Your task to perform on an android device: toggle priority inbox in the gmail app Image 0: 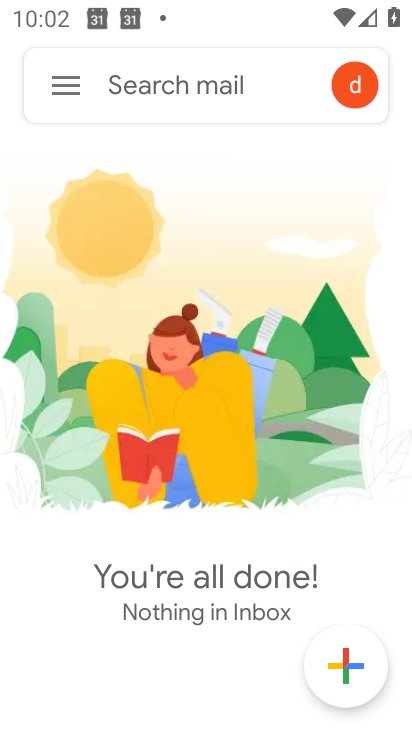
Step 0: press home button
Your task to perform on an android device: toggle priority inbox in the gmail app Image 1: 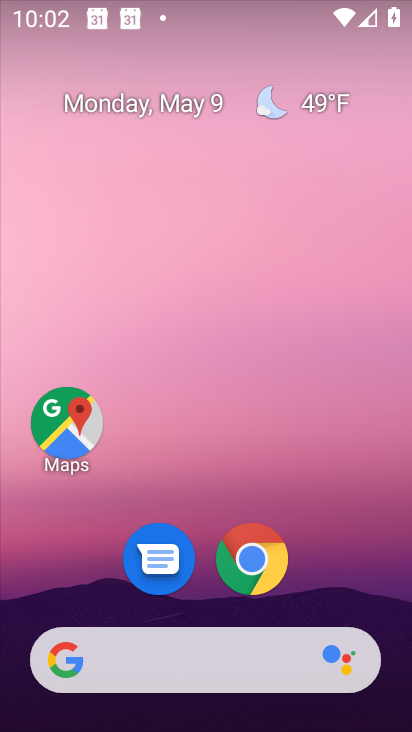
Step 1: drag from (205, 730) to (203, 191)
Your task to perform on an android device: toggle priority inbox in the gmail app Image 2: 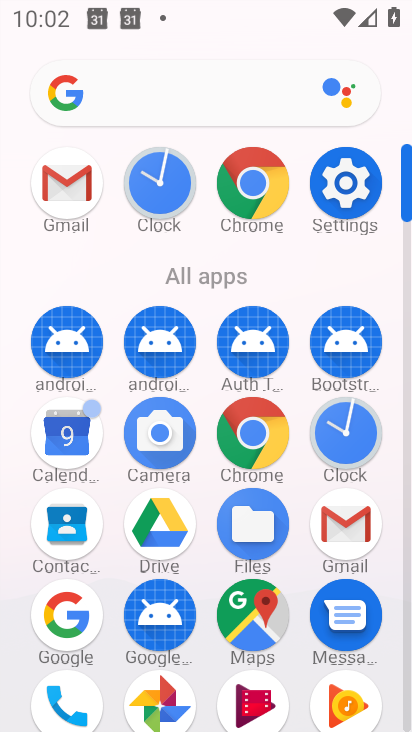
Step 2: click (344, 525)
Your task to perform on an android device: toggle priority inbox in the gmail app Image 3: 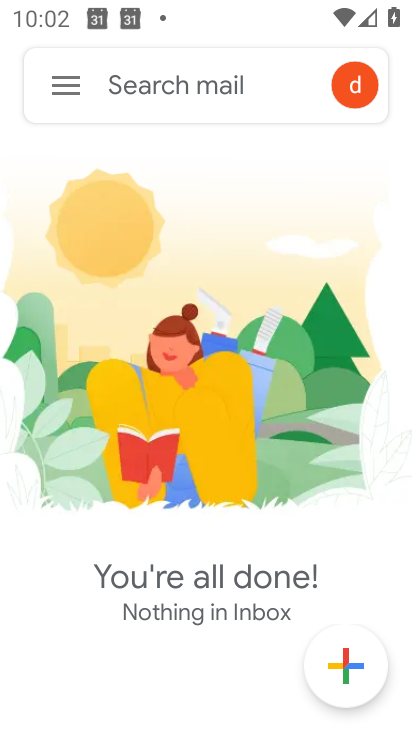
Step 3: click (63, 88)
Your task to perform on an android device: toggle priority inbox in the gmail app Image 4: 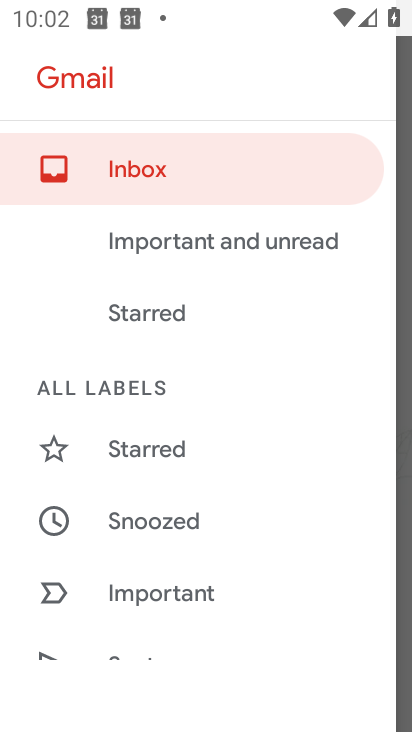
Step 4: drag from (208, 641) to (207, 166)
Your task to perform on an android device: toggle priority inbox in the gmail app Image 5: 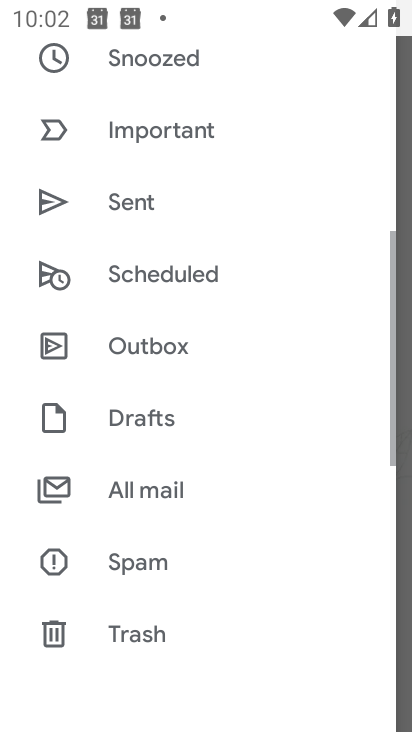
Step 5: drag from (182, 648) to (210, 218)
Your task to perform on an android device: toggle priority inbox in the gmail app Image 6: 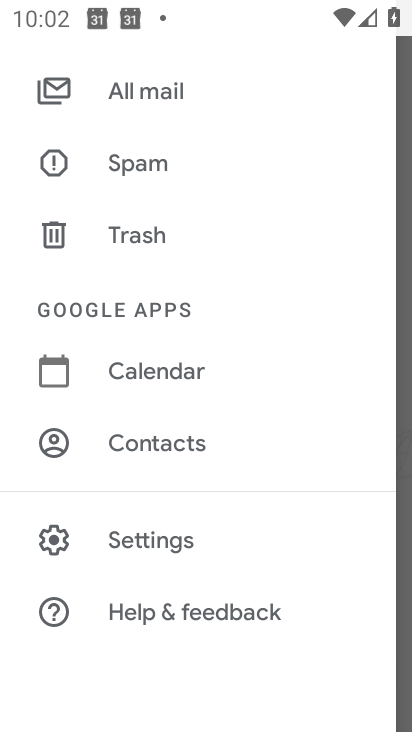
Step 6: click (141, 536)
Your task to perform on an android device: toggle priority inbox in the gmail app Image 7: 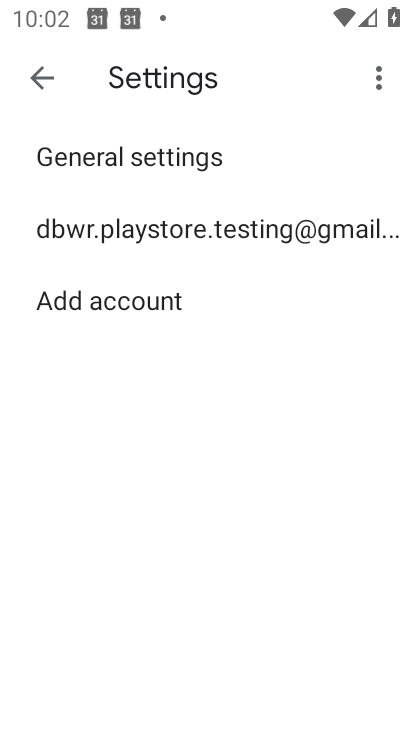
Step 7: click (179, 236)
Your task to perform on an android device: toggle priority inbox in the gmail app Image 8: 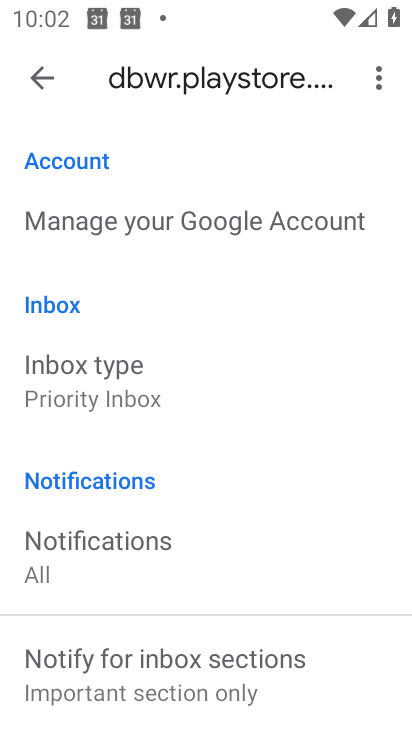
Step 8: click (100, 382)
Your task to perform on an android device: toggle priority inbox in the gmail app Image 9: 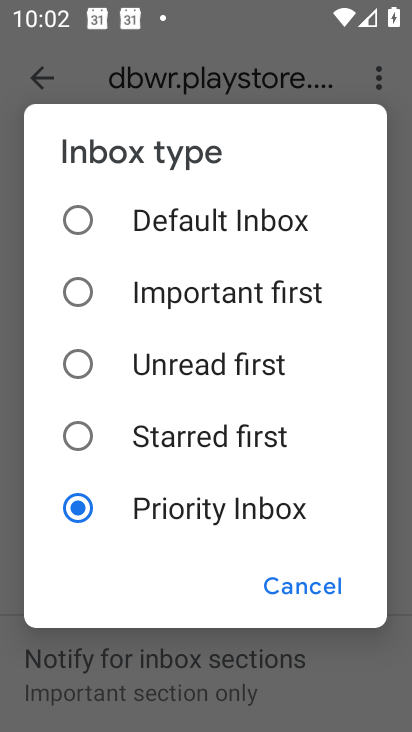
Step 9: click (77, 219)
Your task to perform on an android device: toggle priority inbox in the gmail app Image 10: 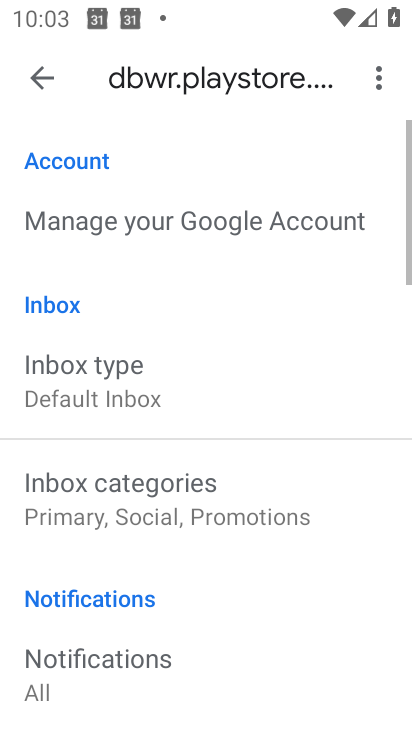
Step 10: task complete